Your task to perform on an android device: set an alarm Image 0: 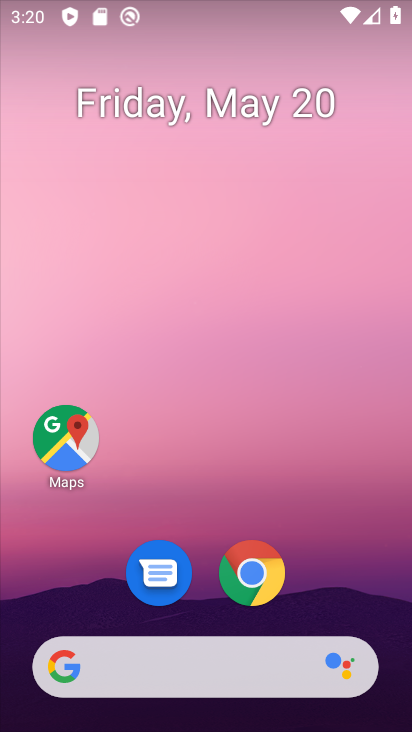
Step 0: drag from (186, 623) to (229, 45)
Your task to perform on an android device: set an alarm Image 1: 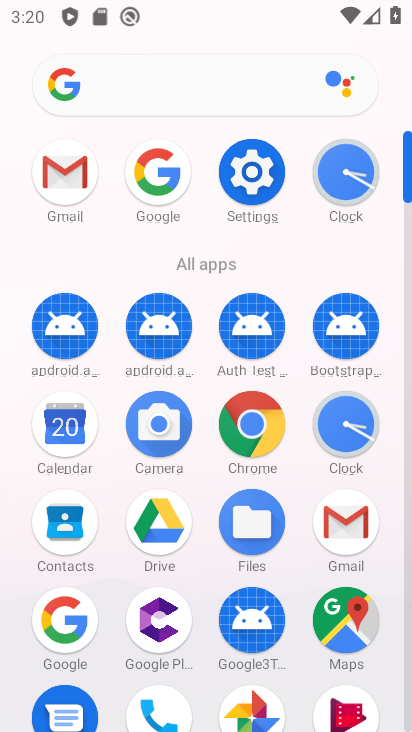
Step 1: click (337, 420)
Your task to perform on an android device: set an alarm Image 2: 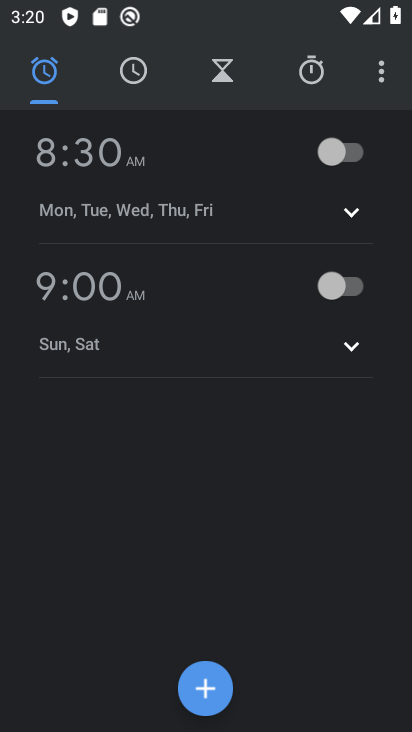
Step 2: click (320, 70)
Your task to perform on an android device: set an alarm Image 3: 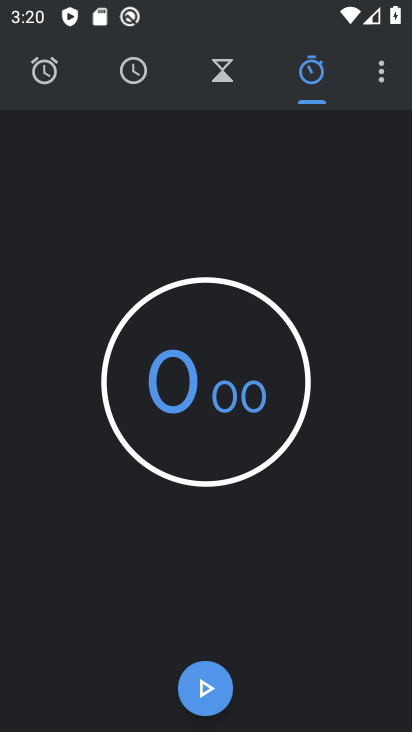
Step 3: click (27, 79)
Your task to perform on an android device: set an alarm Image 4: 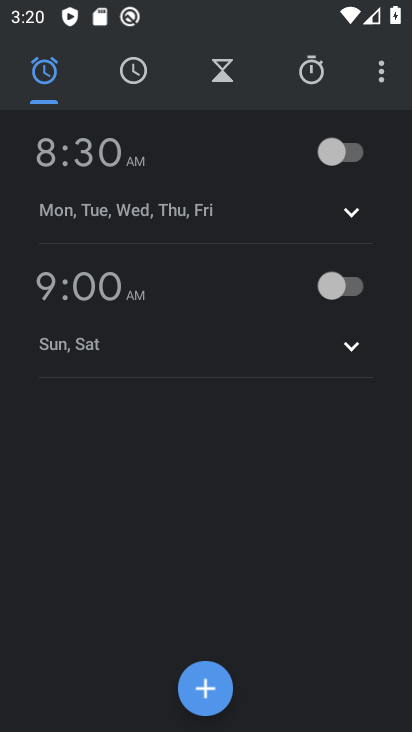
Step 4: click (210, 679)
Your task to perform on an android device: set an alarm Image 5: 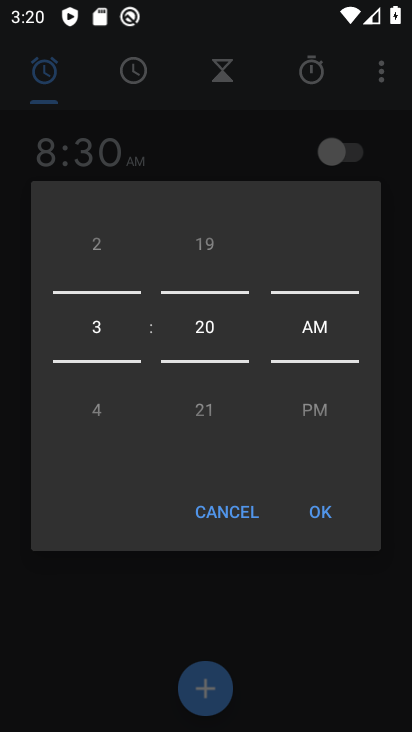
Step 5: click (326, 505)
Your task to perform on an android device: set an alarm Image 6: 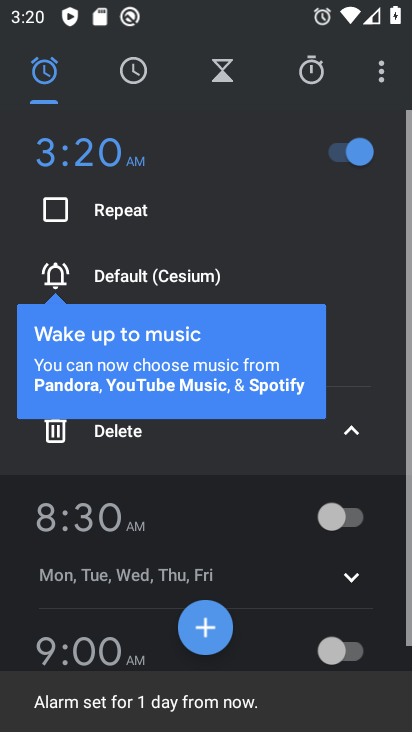
Step 6: task complete